Your task to perform on an android device: turn on showing notifications on the lock screen Image 0: 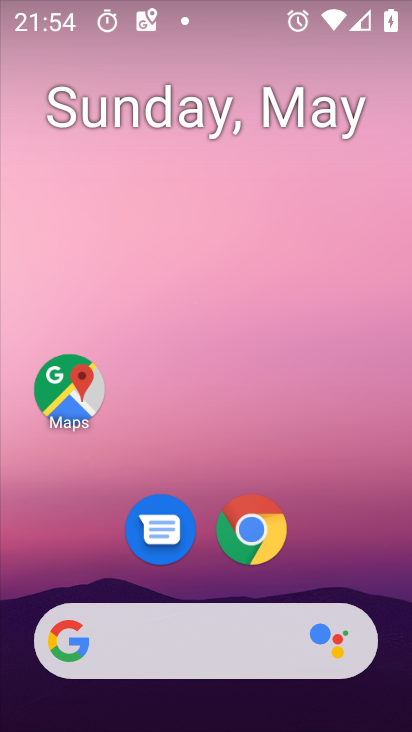
Step 0: drag from (363, 597) to (367, 12)
Your task to perform on an android device: turn on showing notifications on the lock screen Image 1: 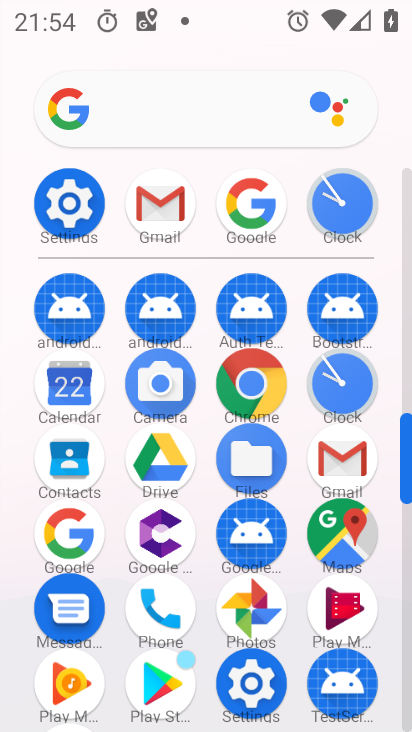
Step 1: click (53, 206)
Your task to perform on an android device: turn on showing notifications on the lock screen Image 2: 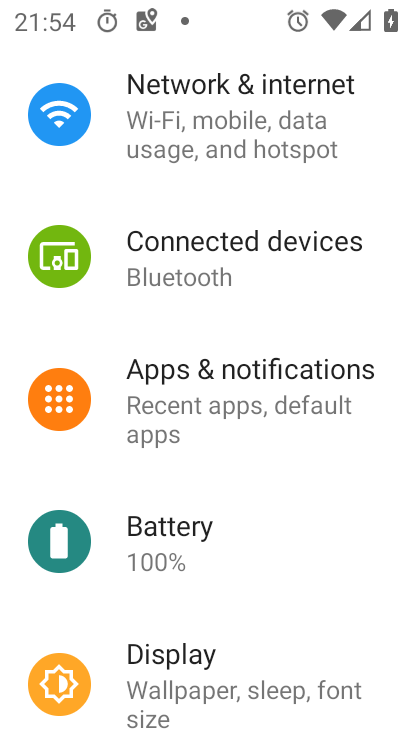
Step 2: click (243, 381)
Your task to perform on an android device: turn on showing notifications on the lock screen Image 3: 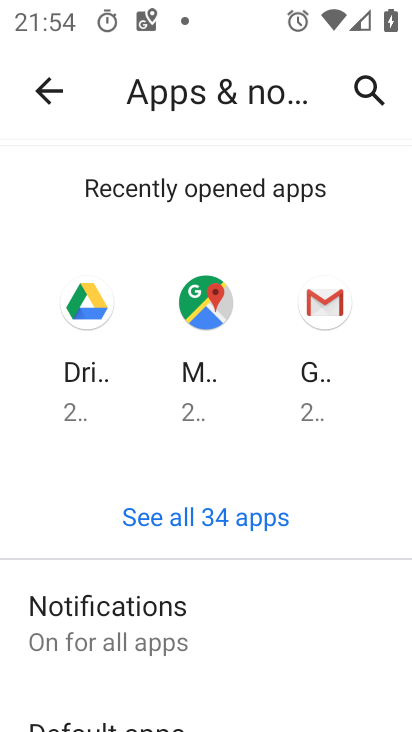
Step 3: click (77, 633)
Your task to perform on an android device: turn on showing notifications on the lock screen Image 4: 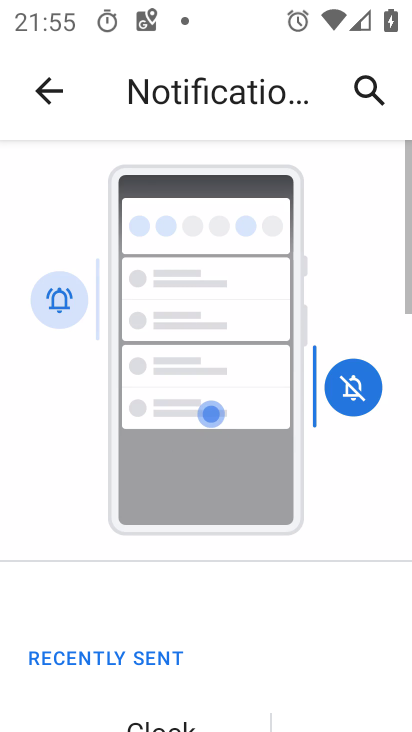
Step 4: drag from (261, 672) to (245, 76)
Your task to perform on an android device: turn on showing notifications on the lock screen Image 5: 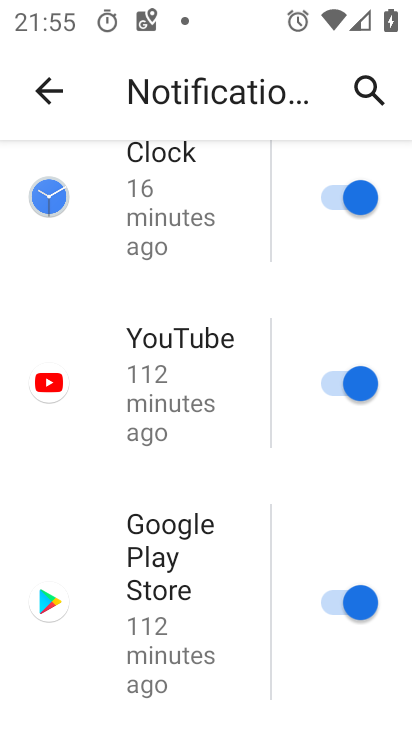
Step 5: drag from (204, 586) to (169, 134)
Your task to perform on an android device: turn on showing notifications on the lock screen Image 6: 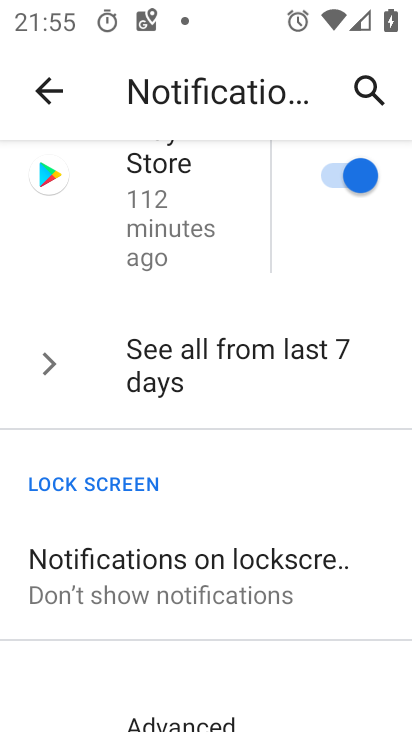
Step 6: drag from (172, 498) to (172, 277)
Your task to perform on an android device: turn on showing notifications on the lock screen Image 7: 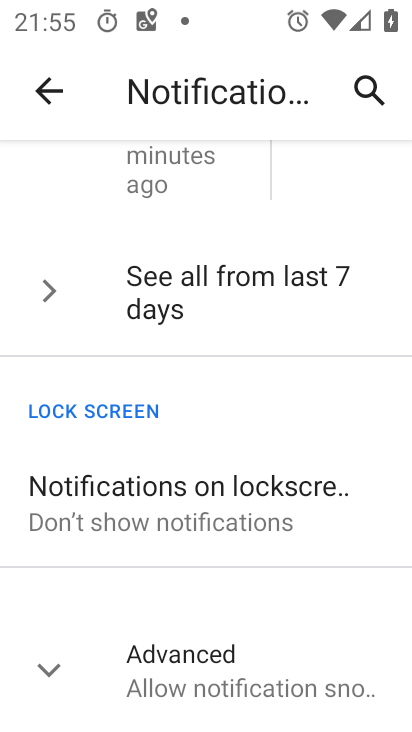
Step 7: click (146, 505)
Your task to perform on an android device: turn on showing notifications on the lock screen Image 8: 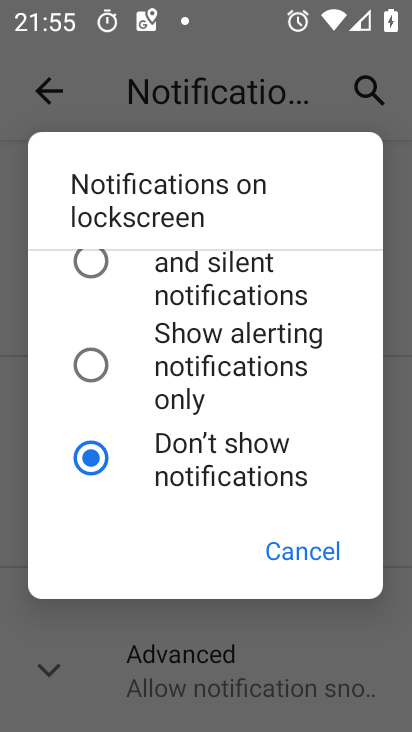
Step 8: click (89, 270)
Your task to perform on an android device: turn on showing notifications on the lock screen Image 9: 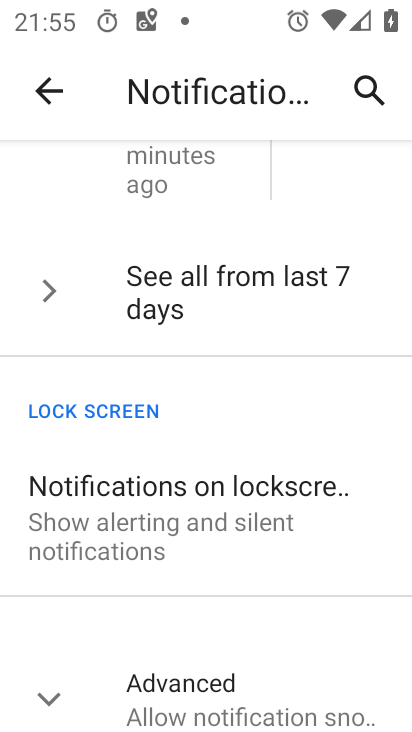
Step 9: task complete